Your task to perform on an android device: Open the calendar and show me this week's events? Image 0: 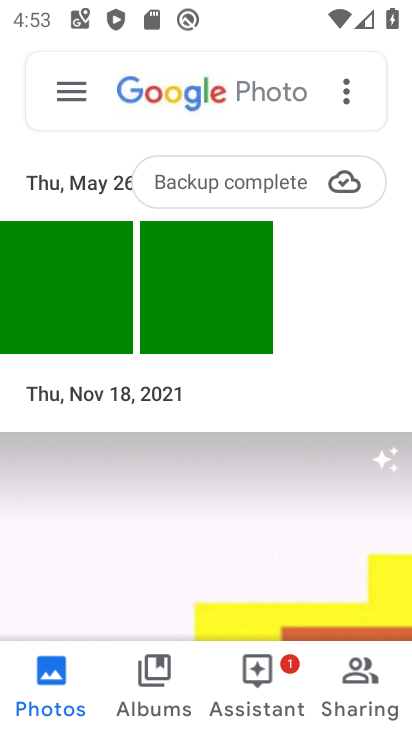
Step 0: press home button
Your task to perform on an android device: Open the calendar and show me this week's events? Image 1: 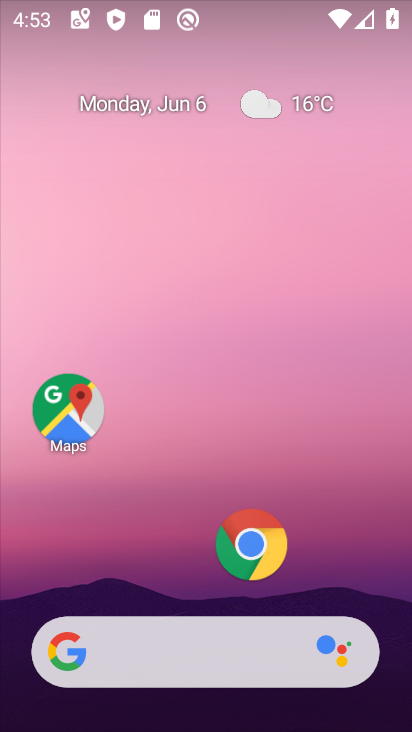
Step 1: drag from (196, 566) to (196, 117)
Your task to perform on an android device: Open the calendar and show me this week's events? Image 2: 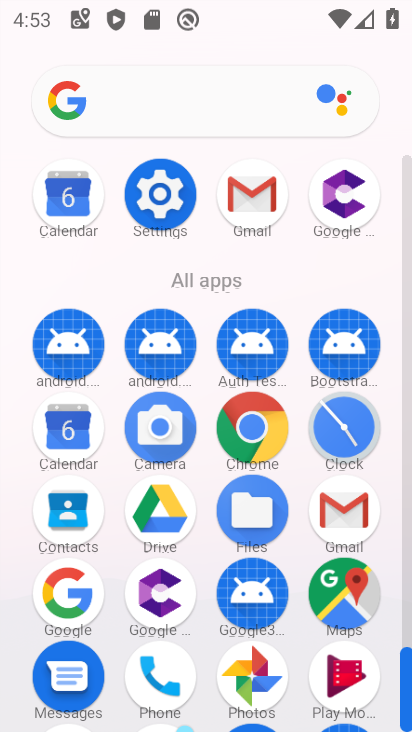
Step 2: click (69, 421)
Your task to perform on an android device: Open the calendar and show me this week's events? Image 3: 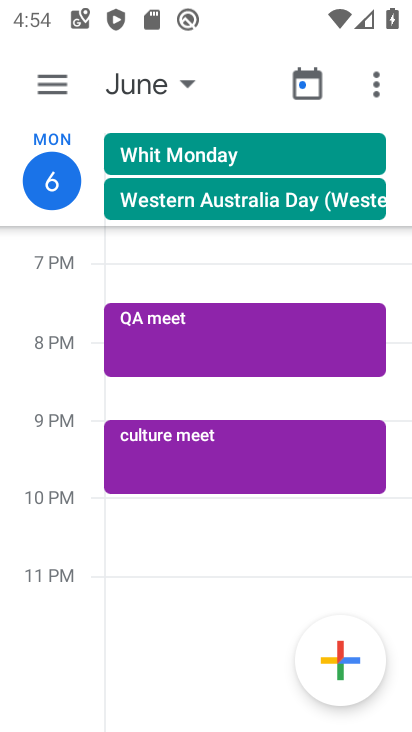
Step 3: click (90, 191)
Your task to perform on an android device: Open the calendar and show me this week's events? Image 4: 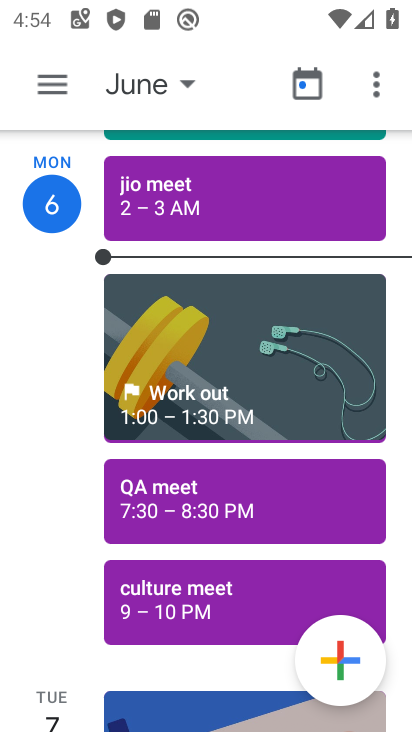
Step 4: click (56, 96)
Your task to perform on an android device: Open the calendar and show me this week's events? Image 5: 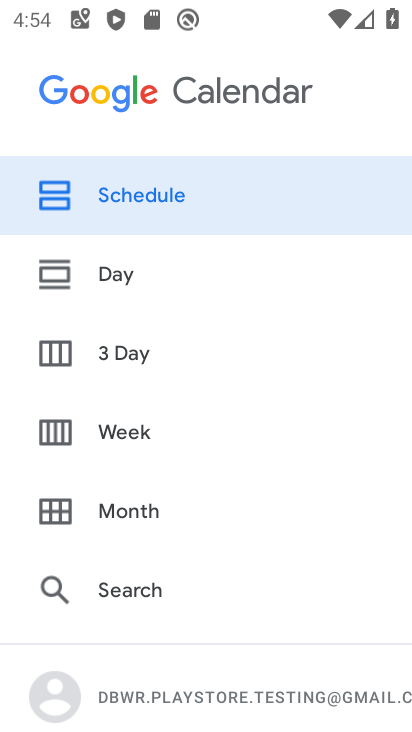
Step 5: drag from (140, 614) to (175, 241)
Your task to perform on an android device: Open the calendar and show me this week's events? Image 6: 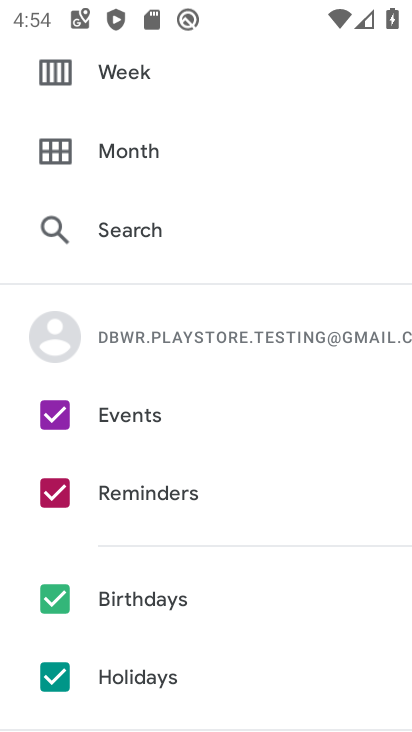
Step 6: click (49, 490)
Your task to perform on an android device: Open the calendar and show me this week's events? Image 7: 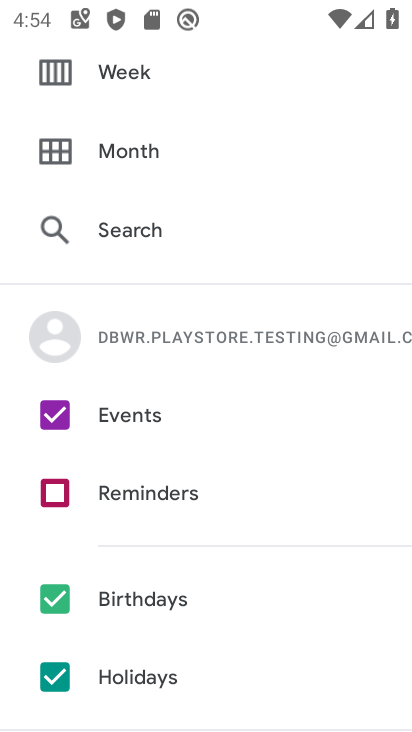
Step 7: click (49, 588)
Your task to perform on an android device: Open the calendar and show me this week's events? Image 8: 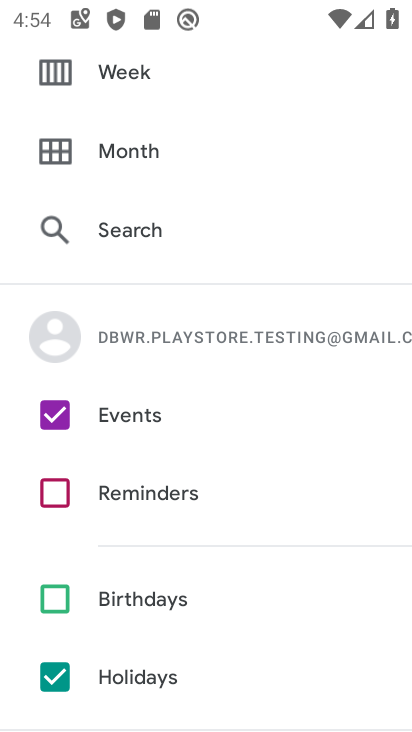
Step 8: click (52, 666)
Your task to perform on an android device: Open the calendar and show me this week's events? Image 9: 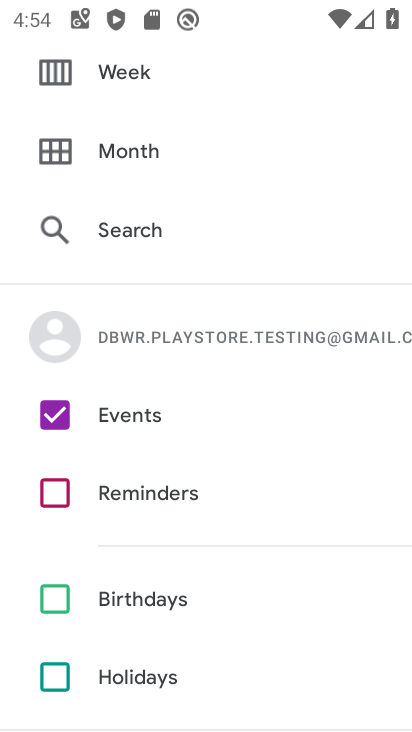
Step 9: drag from (204, 143) to (205, 689)
Your task to perform on an android device: Open the calendar and show me this week's events? Image 10: 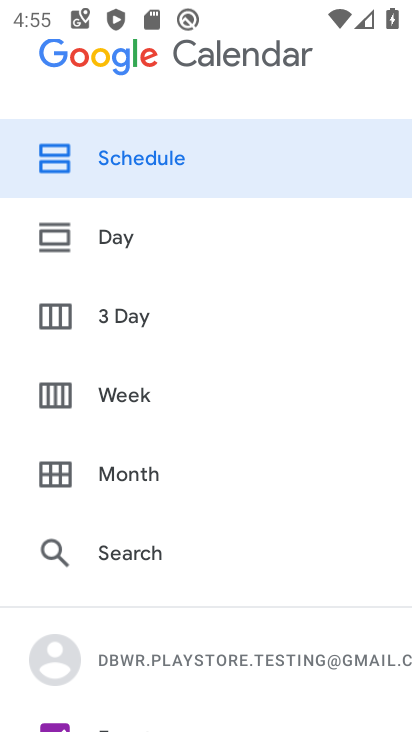
Step 10: click (130, 162)
Your task to perform on an android device: Open the calendar and show me this week's events? Image 11: 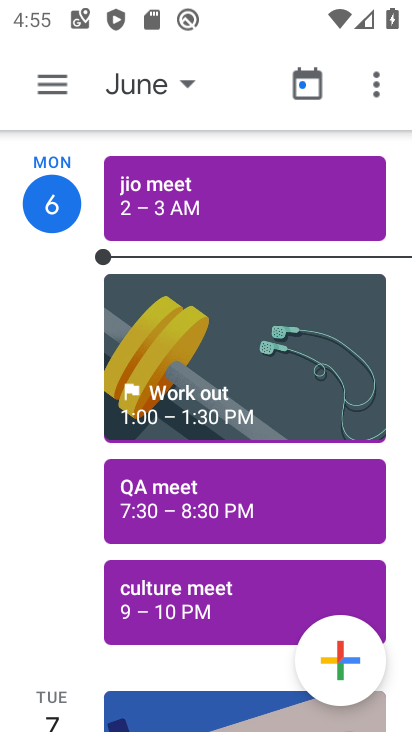
Step 11: task complete